Your task to perform on an android device: set the timer Image 0: 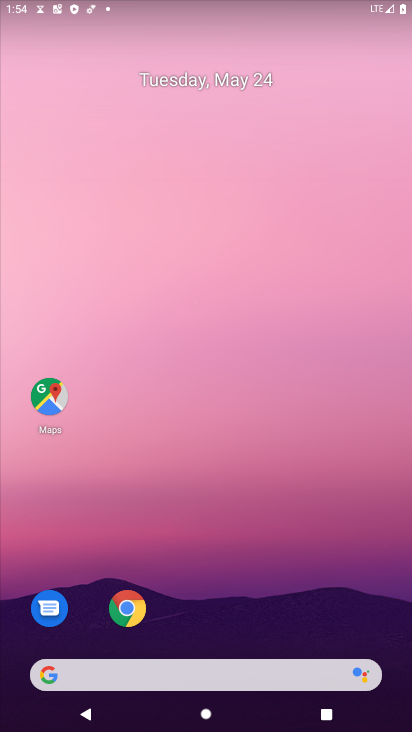
Step 0: drag from (225, 614) to (194, 263)
Your task to perform on an android device: set the timer Image 1: 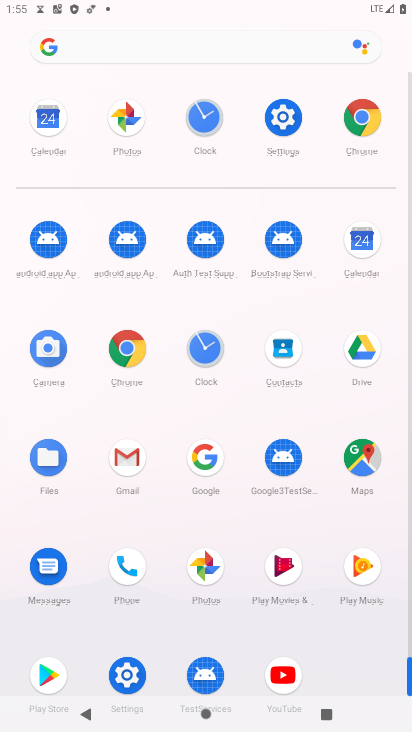
Step 1: click (200, 132)
Your task to perform on an android device: set the timer Image 2: 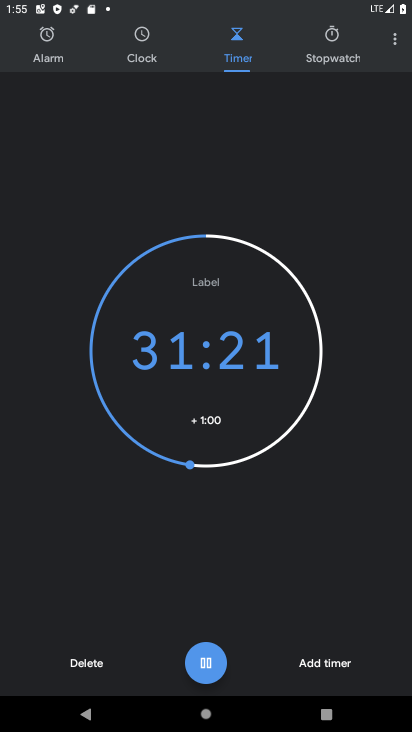
Step 2: task complete